Your task to perform on an android device: Go to eBay Image 0: 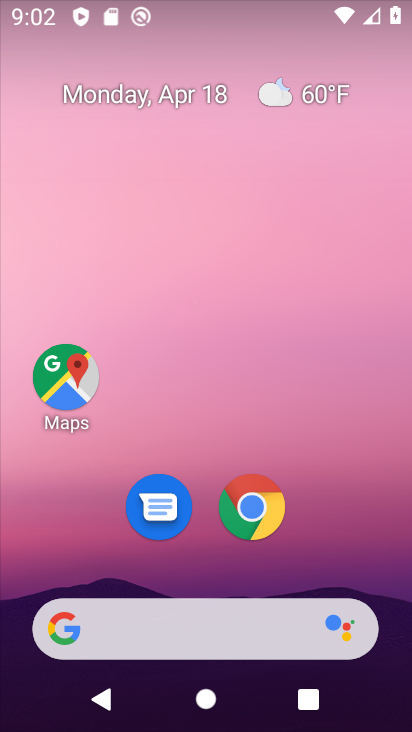
Step 0: click (268, 523)
Your task to perform on an android device: Go to eBay Image 1: 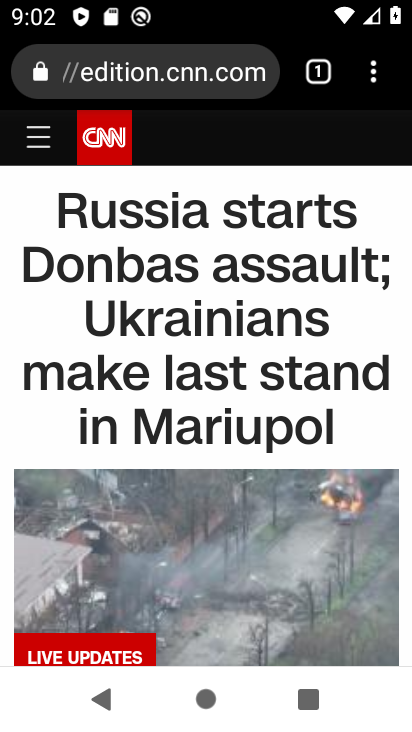
Step 1: click (180, 77)
Your task to perform on an android device: Go to eBay Image 2: 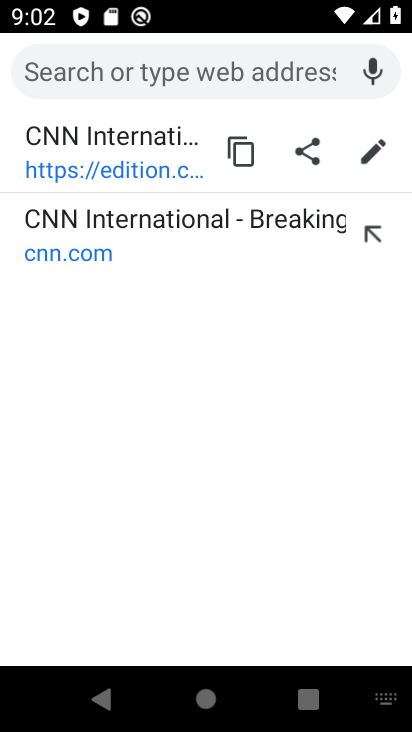
Step 2: type "ebay"
Your task to perform on an android device: Go to eBay Image 3: 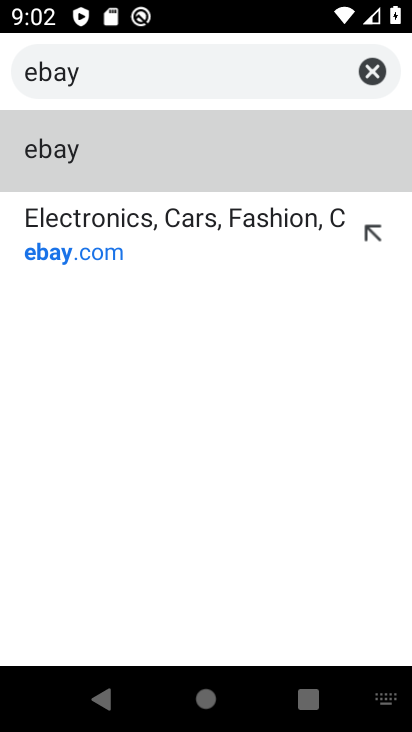
Step 3: click (76, 171)
Your task to perform on an android device: Go to eBay Image 4: 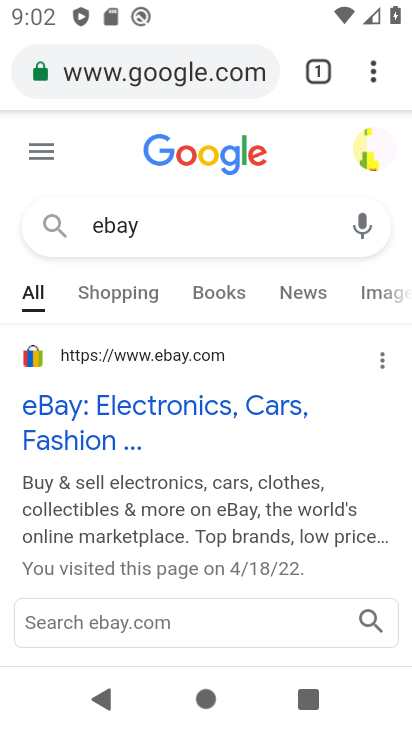
Step 4: click (82, 414)
Your task to perform on an android device: Go to eBay Image 5: 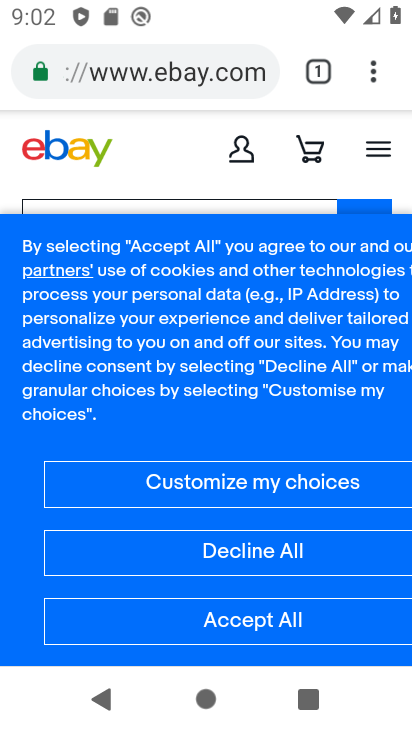
Step 5: task complete